Your task to perform on an android device: change your default location settings in chrome Image 0: 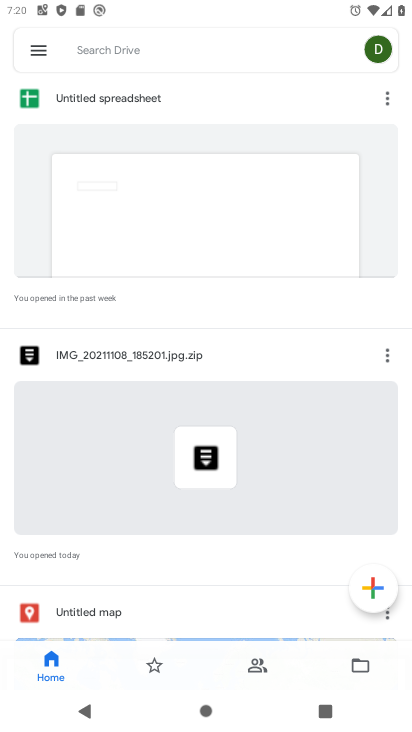
Step 0: press home button
Your task to perform on an android device: change your default location settings in chrome Image 1: 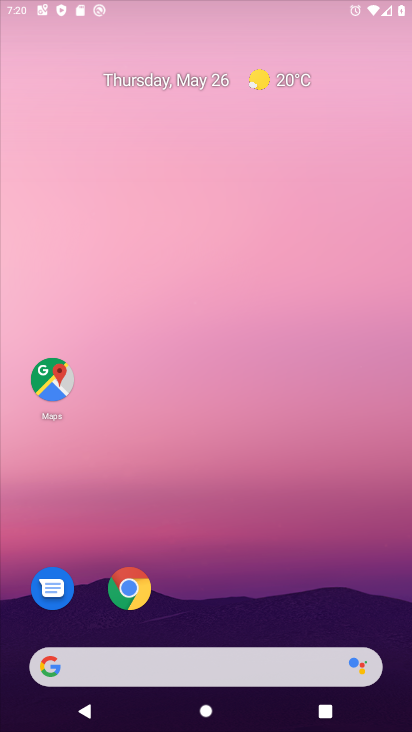
Step 1: drag from (379, 647) to (324, 18)
Your task to perform on an android device: change your default location settings in chrome Image 2: 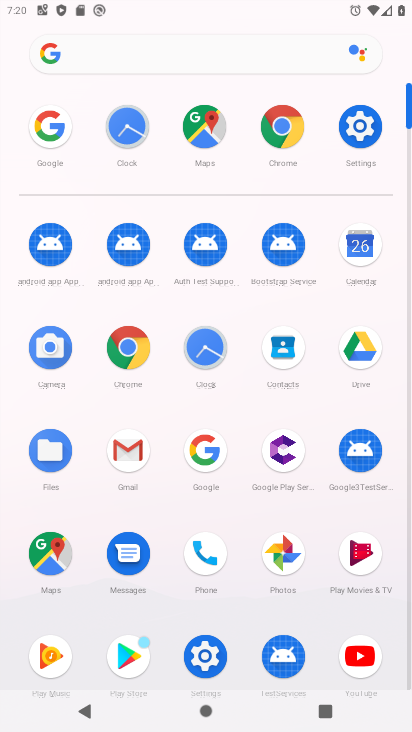
Step 2: click (125, 350)
Your task to perform on an android device: change your default location settings in chrome Image 3: 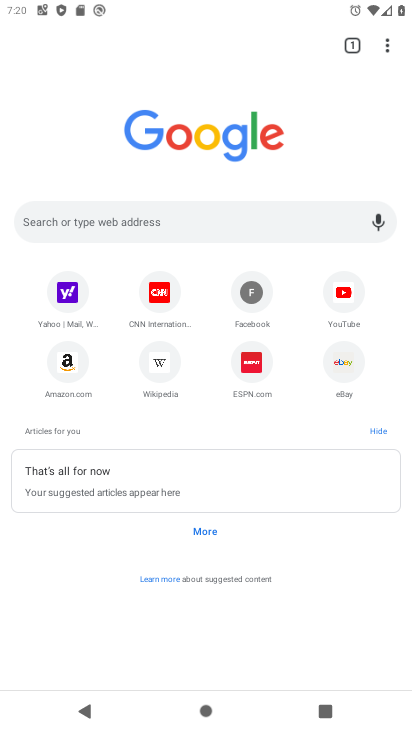
Step 3: click (384, 40)
Your task to perform on an android device: change your default location settings in chrome Image 4: 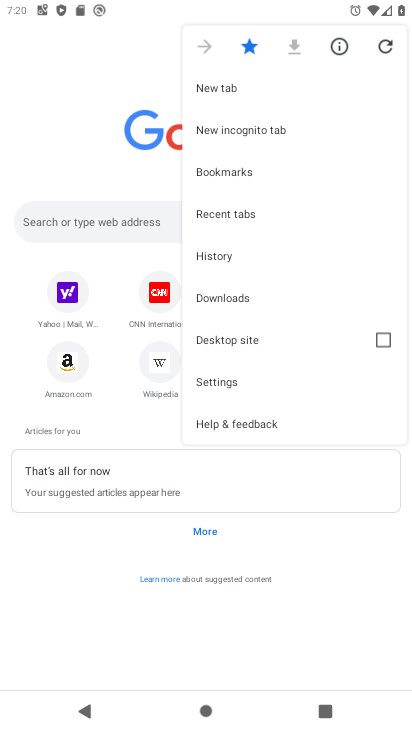
Step 4: click (249, 387)
Your task to perform on an android device: change your default location settings in chrome Image 5: 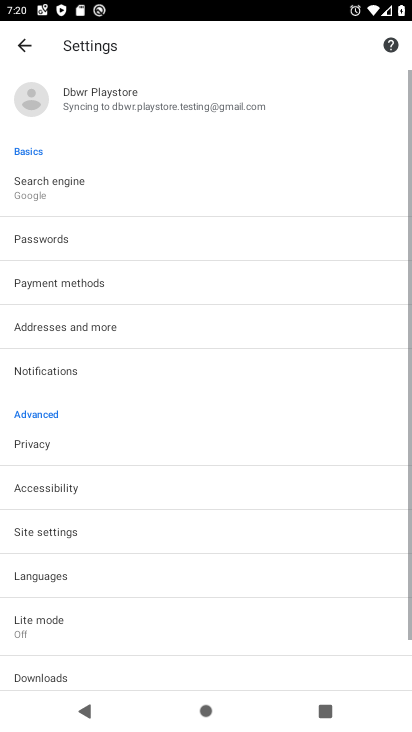
Step 5: click (107, 202)
Your task to perform on an android device: change your default location settings in chrome Image 6: 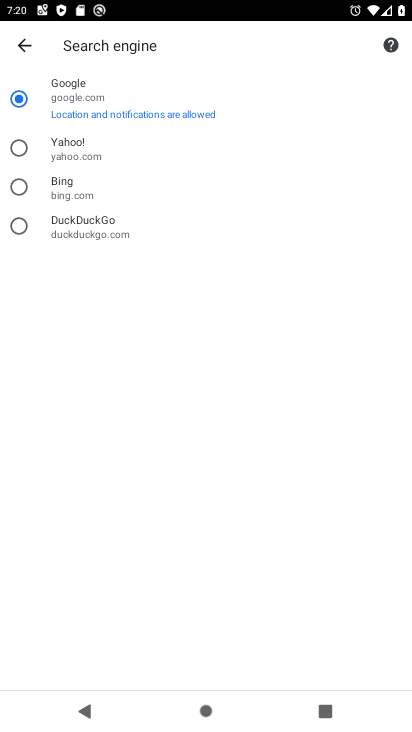
Step 6: click (107, 202)
Your task to perform on an android device: change your default location settings in chrome Image 7: 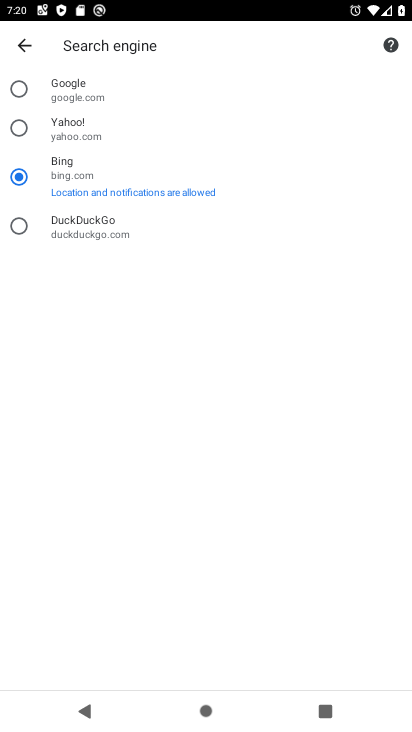
Step 7: task complete